Your task to perform on an android device: Toggle the flashlight Image 0: 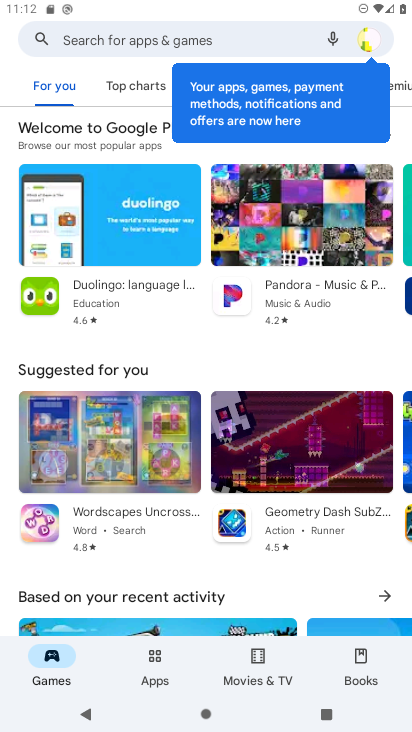
Step 0: press home button
Your task to perform on an android device: Toggle the flashlight Image 1: 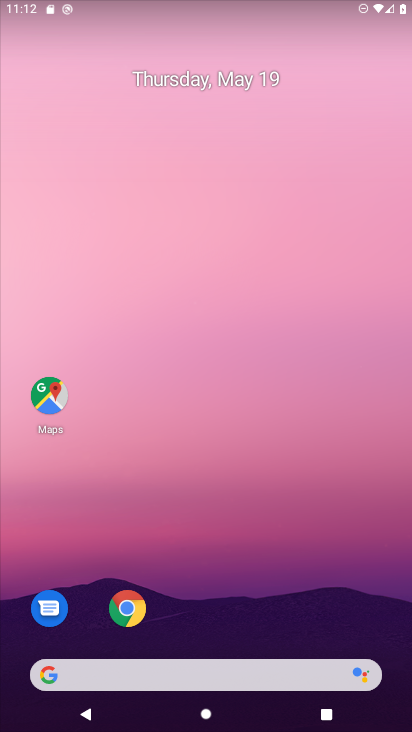
Step 1: task complete